Your task to perform on an android device: turn pop-ups on in chrome Image 0: 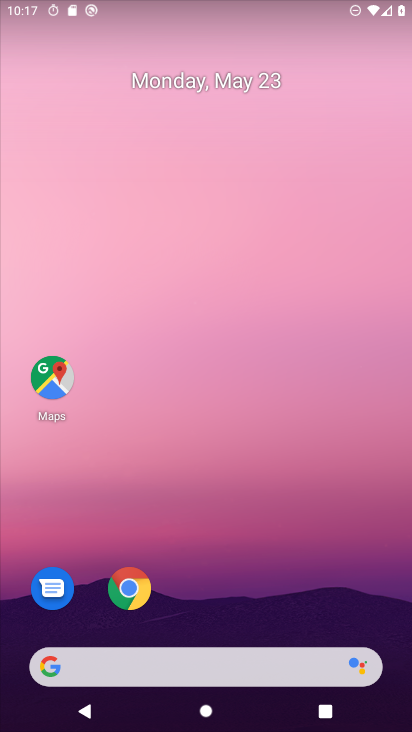
Step 0: click (131, 574)
Your task to perform on an android device: turn pop-ups on in chrome Image 1: 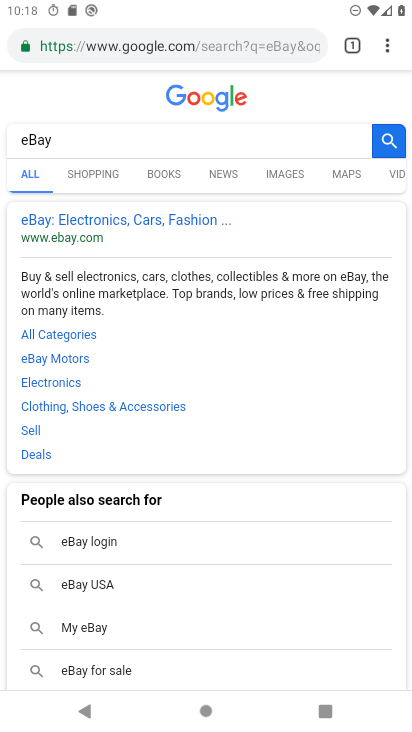
Step 1: click (386, 41)
Your task to perform on an android device: turn pop-ups on in chrome Image 2: 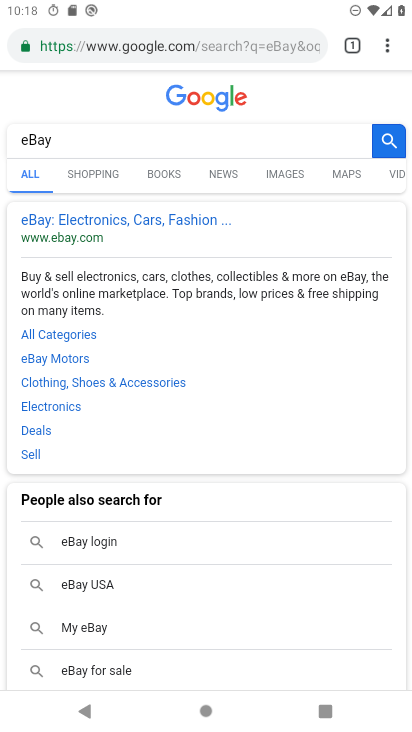
Step 2: click (386, 42)
Your task to perform on an android device: turn pop-ups on in chrome Image 3: 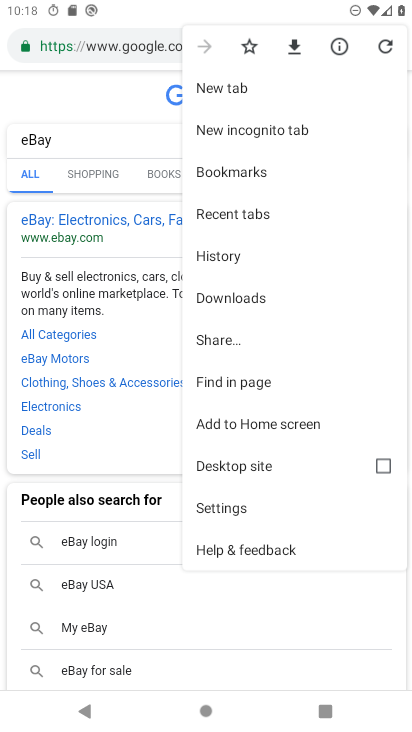
Step 3: click (219, 501)
Your task to perform on an android device: turn pop-ups on in chrome Image 4: 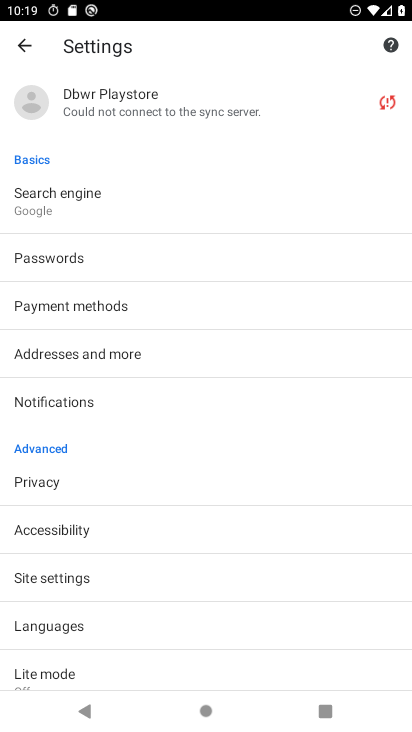
Step 4: drag from (203, 650) to (178, 262)
Your task to perform on an android device: turn pop-ups on in chrome Image 5: 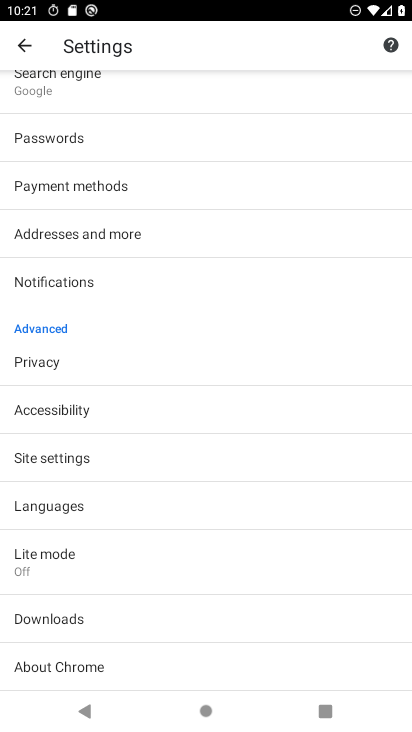
Step 5: click (70, 455)
Your task to perform on an android device: turn pop-ups on in chrome Image 6: 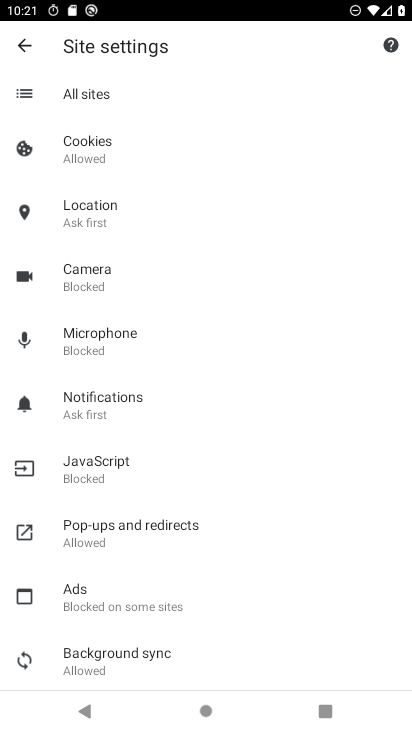
Step 6: click (106, 532)
Your task to perform on an android device: turn pop-ups on in chrome Image 7: 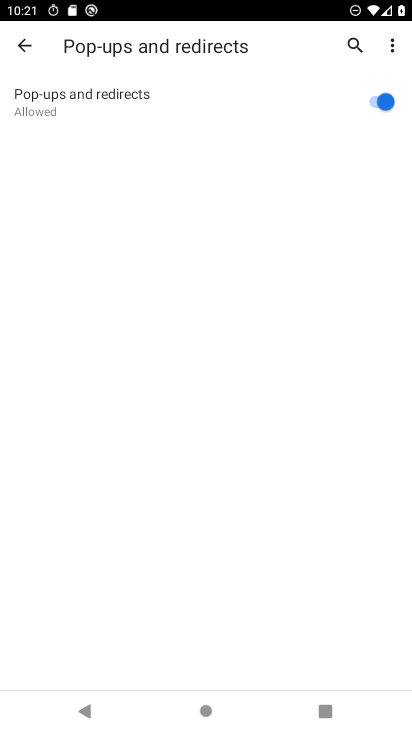
Step 7: task complete